Your task to perform on an android device: all mails in gmail Image 0: 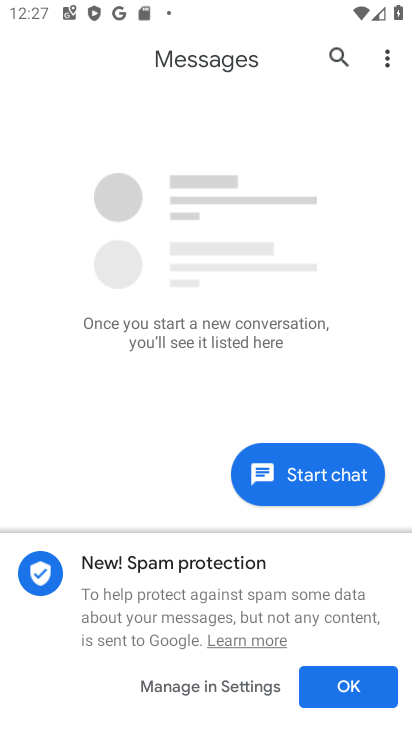
Step 0: press home button
Your task to perform on an android device: all mails in gmail Image 1: 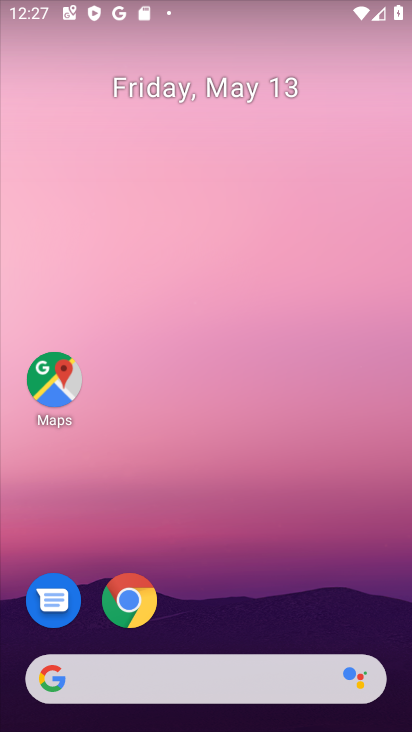
Step 1: drag from (234, 606) to (131, 153)
Your task to perform on an android device: all mails in gmail Image 2: 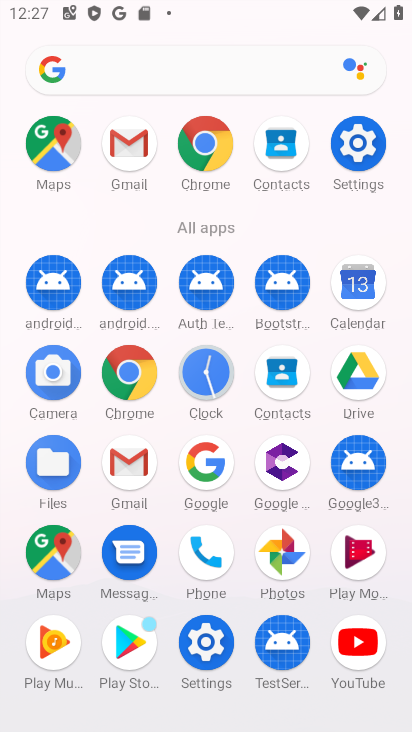
Step 2: click (142, 455)
Your task to perform on an android device: all mails in gmail Image 3: 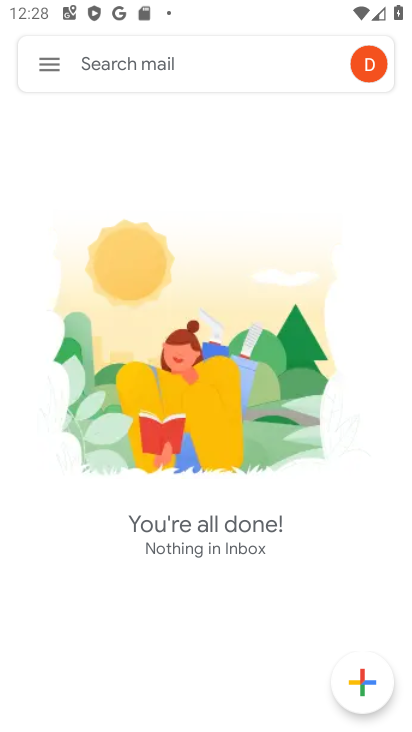
Step 3: click (48, 78)
Your task to perform on an android device: all mails in gmail Image 4: 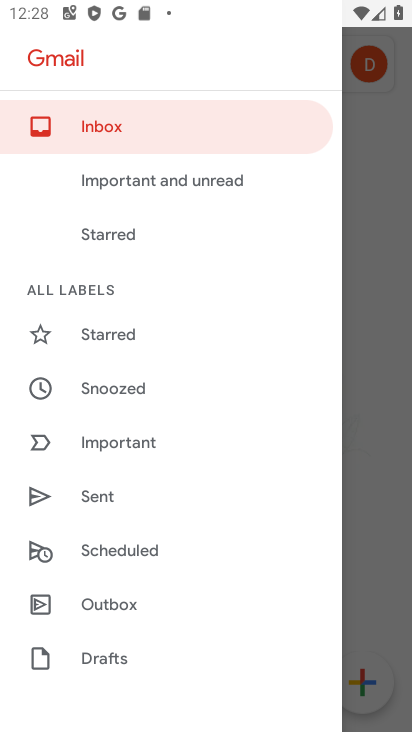
Step 4: drag from (170, 513) to (205, 134)
Your task to perform on an android device: all mails in gmail Image 5: 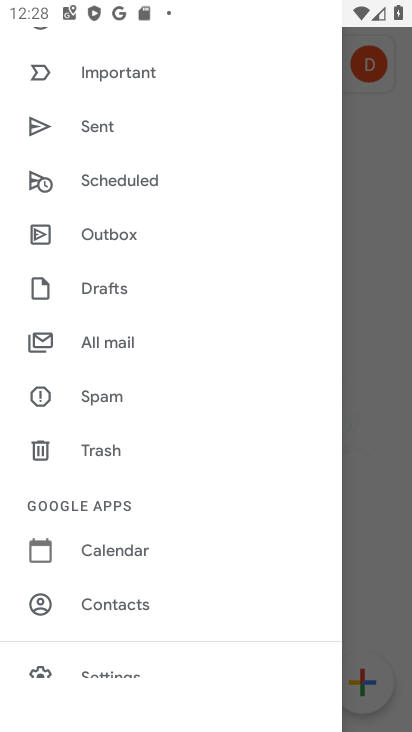
Step 5: click (142, 332)
Your task to perform on an android device: all mails in gmail Image 6: 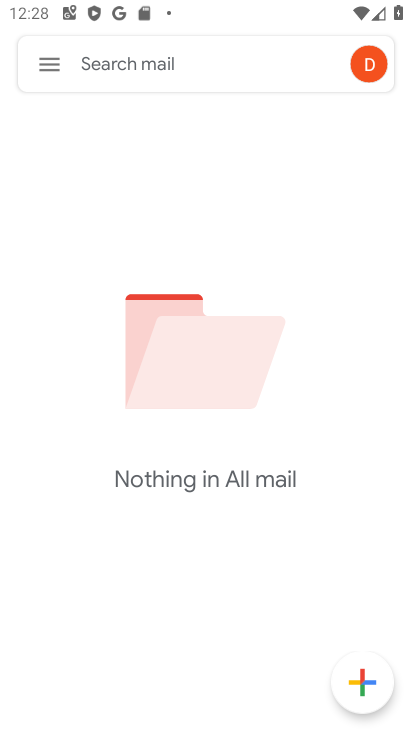
Step 6: task complete